Your task to perform on an android device: Go to calendar. Show me events next week Image 0: 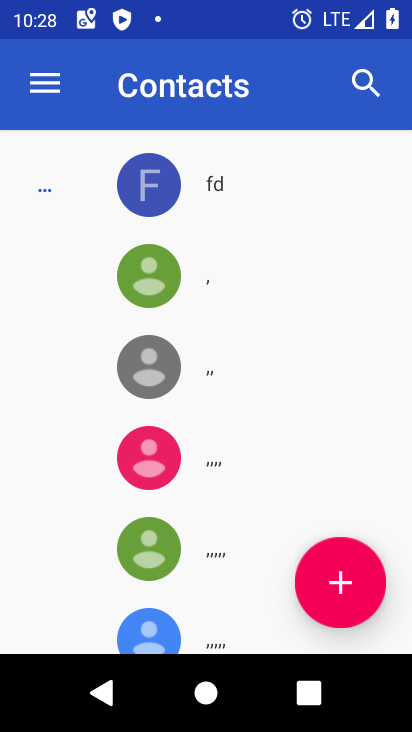
Step 0: press back button
Your task to perform on an android device: Go to calendar. Show me events next week Image 1: 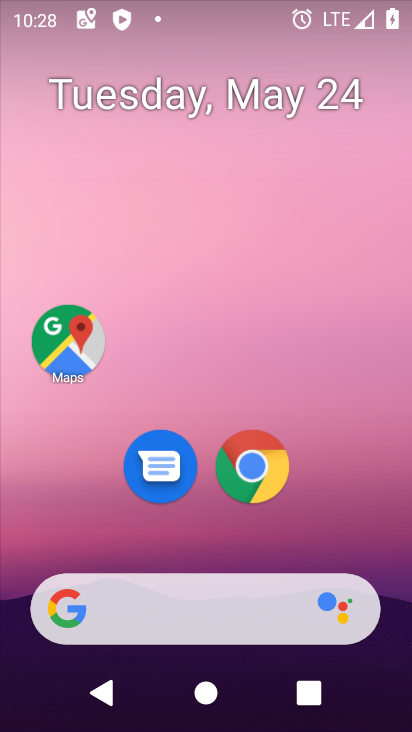
Step 1: drag from (387, 542) to (367, 149)
Your task to perform on an android device: Go to calendar. Show me events next week Image 2: 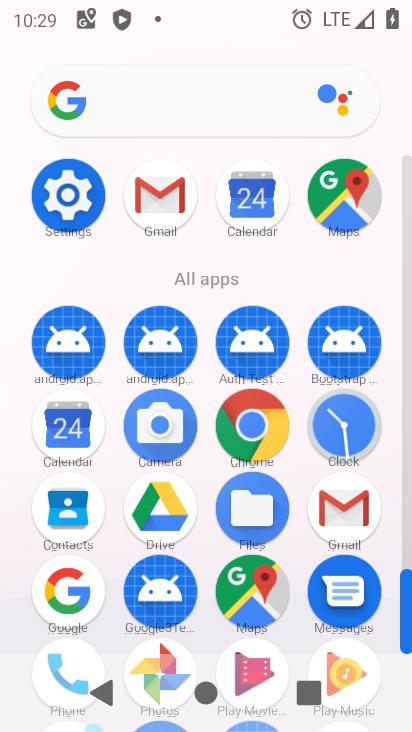
Step 2: click (81, 445)
Your task to perform on an android device: Go to calendar. Show me events next week Image 3: 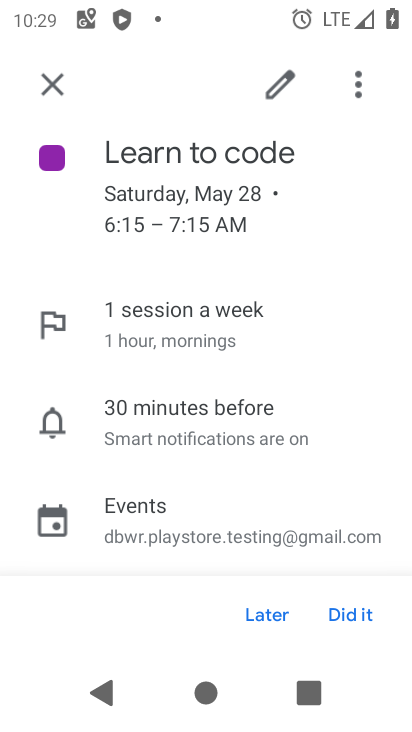
Step 3: click (62, 85)
Your task to perform on an android device: Go to calendar. Show me events next week Image 4: 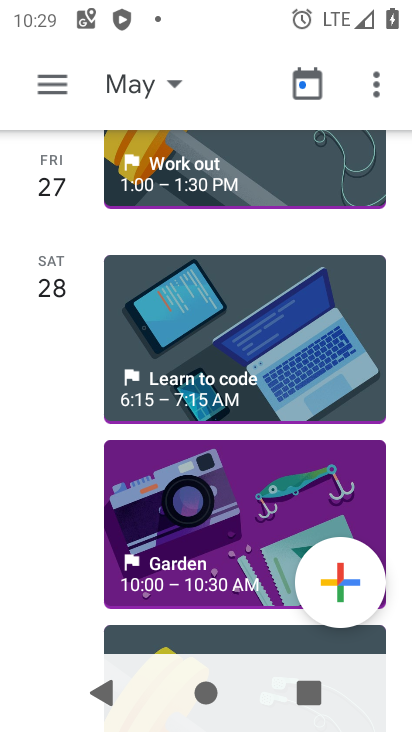
Step 4: click (178, 89)
Your task to perform on an android device: Go to calendar. Show me events next week Image 5: 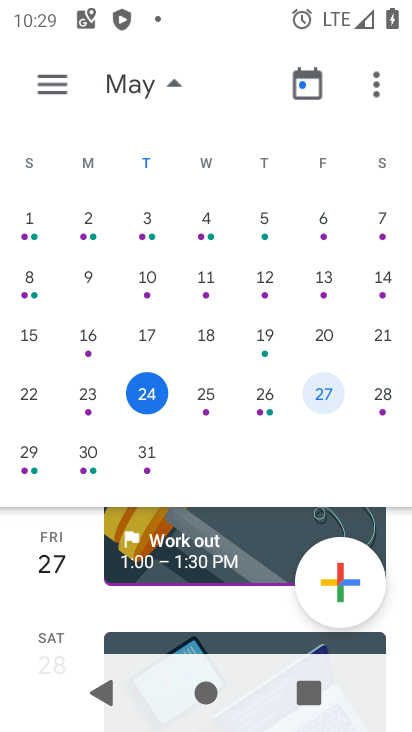
Step 5: click (86, 458)
Your task to perform on an android device: Go to calendar. Show me events next week Image 6: 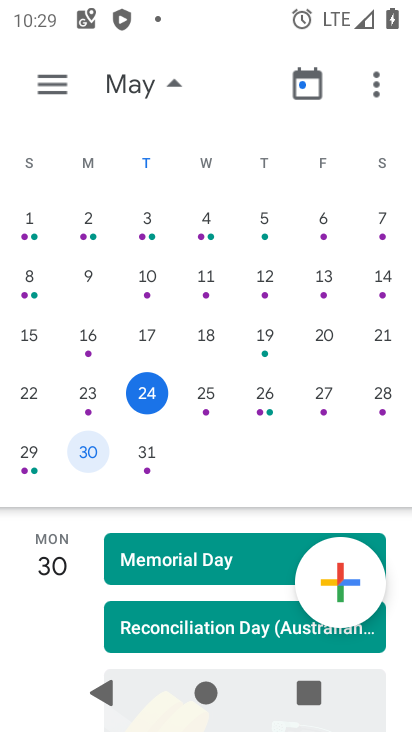
Step 6: task complete